Your task to perform on an android device: empty trash in the gmail app Image 0: 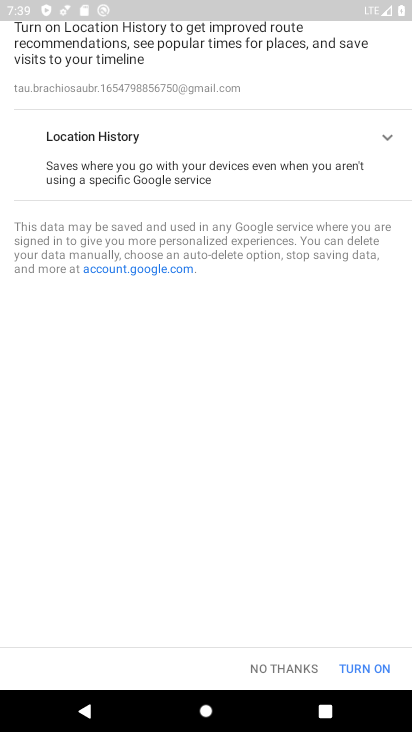
Step 0: press home button
Your task to perform on an android device: empty trash in the gmail app Image 1: 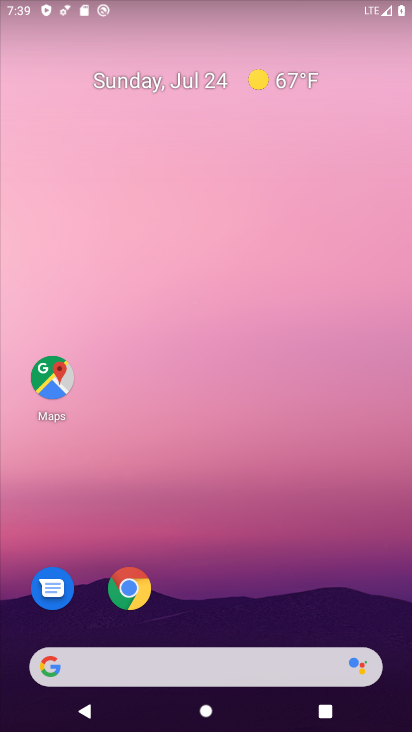
Step 1: drag from (192, 659) to (165, 228)
Your task to perform on an android device: empty trash in the gmail app Image 2: 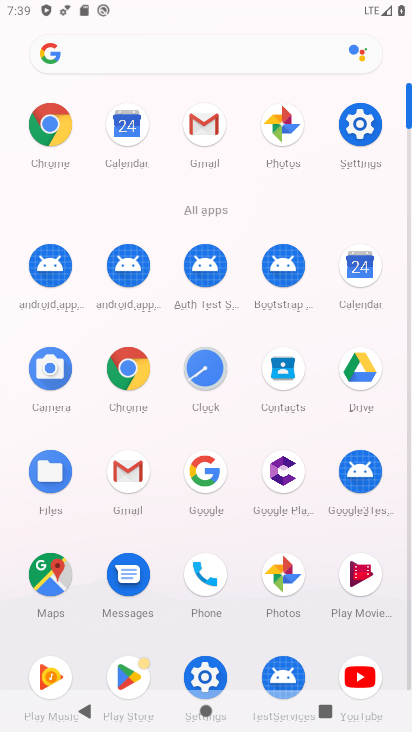
Step 2: click (201, 109)
Your task to perform on an android device: empty trash in the gmail app Image 3: 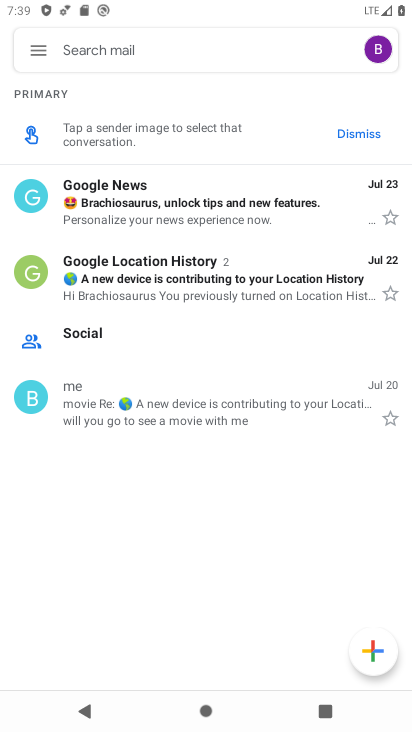
Step 3: click (35, 45)
Your task to perform on an android device: empty trash in the gmail app Image 4: 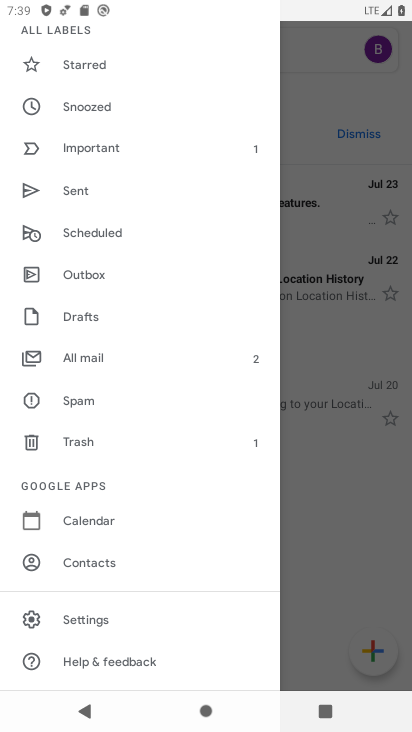
Step 4: click (83, 443)
Your task to perform on an android device: empty trash in the gmail app Image 5: 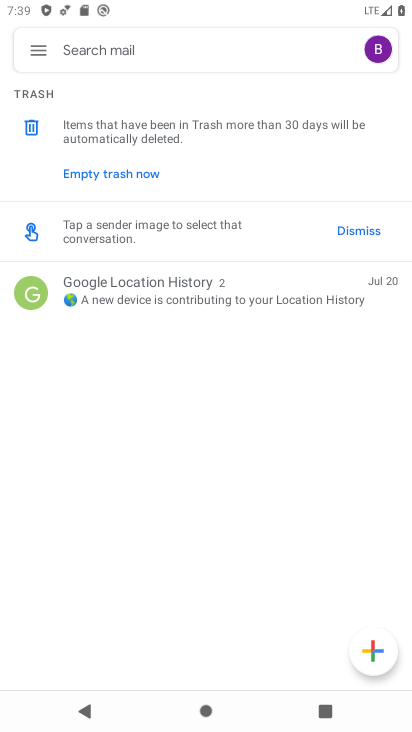
Step 5: click (171, 304)
Your task to perform on an android device: empty trash in the gmail app Image 6: 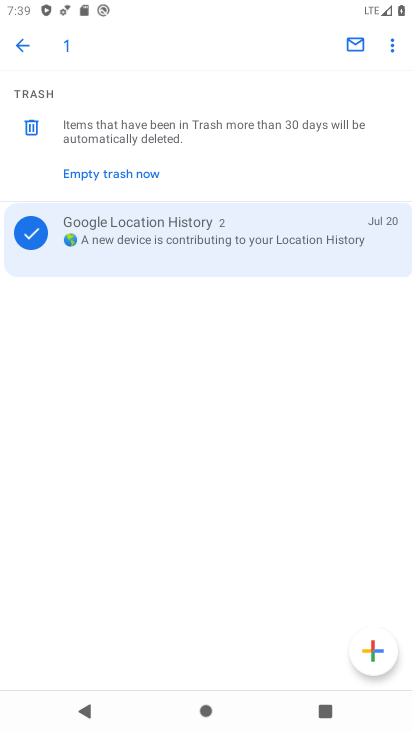
Step 6: click (35, 125)
Your task to perform on an android device: empty trash in the gmail app Image 7: 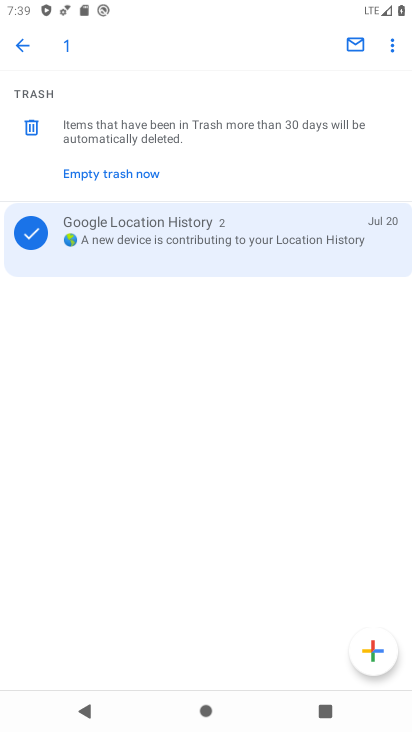
Step 7: click (29, 122)
Your task to perform on an android device: empty trash in the gmail app Image 8: 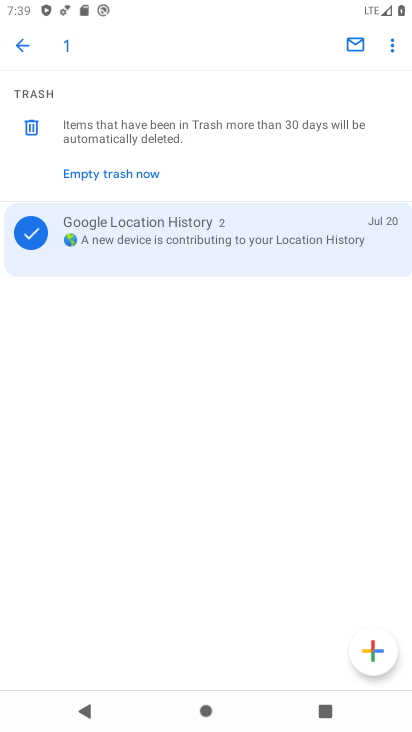
Step 8: click (29, 122)
Your task to perform on an android device: empty trash in the gmail app Image 9: 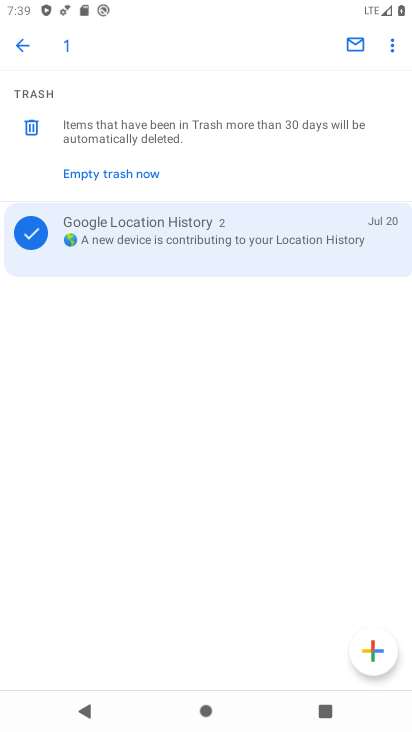
Step 9: click (29, 122)
Your task to perform on an android device: empty trash in the gmail app Image 10: 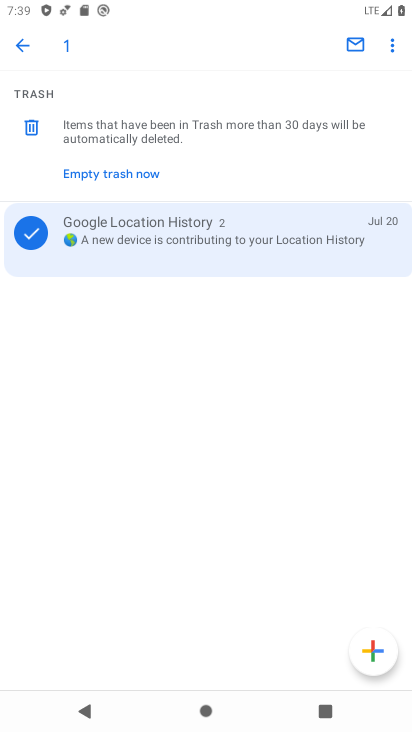
Step 10: click (29, 122)
Your task to perform on an android device: empty trash in the gmail app Image 11: 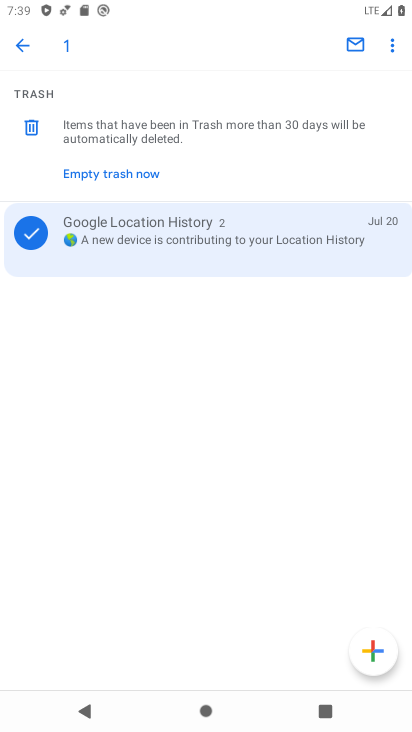
Step 11: click (31, 128)
Your task to perform on an android device: empty trash in the gmail app Image 12: 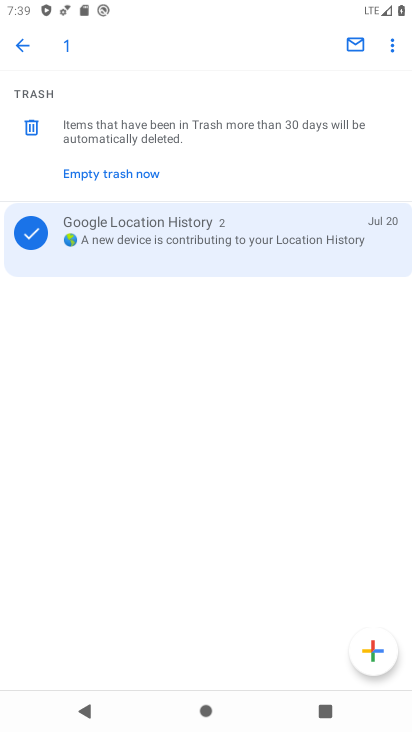
Step 12: click (401, 26)
Your task to perform on an android device: empty trash in the gmail app Image 13: 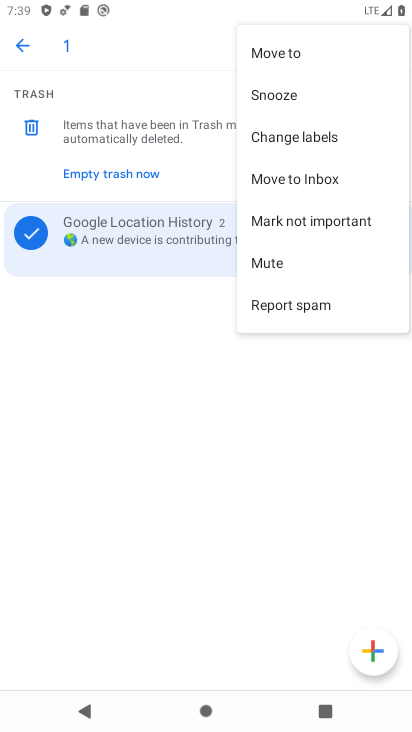
Step 13: click (45, 357)
Your task to perform on an android device: empty trash in the gmail app Image 14: 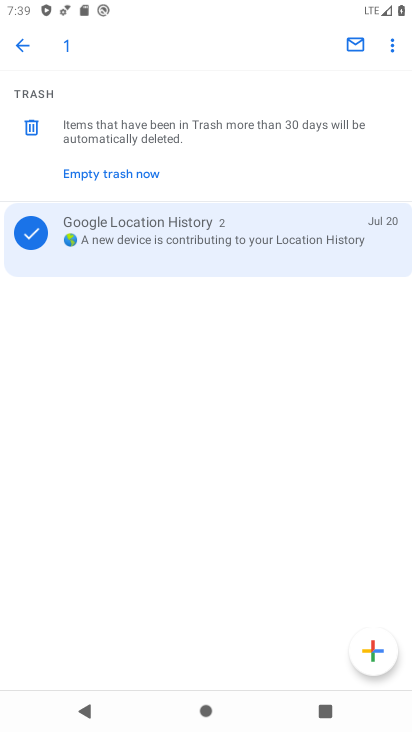
Step 14: click (169, 219)
Your task to perform on an android device: empty trash in the gmail app Image 15: 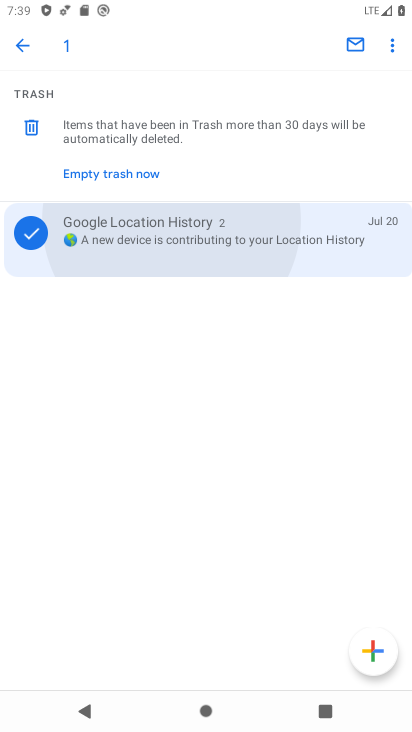
Step 15: click (166, 223)
Your task to perform on an android device: empty trash in the gmail app Image 16: 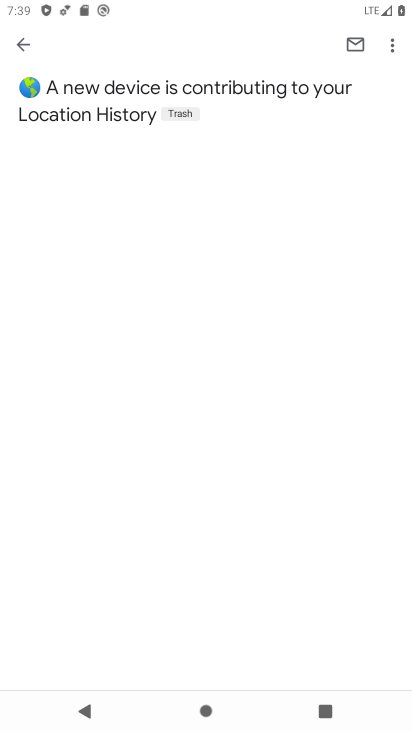
Step 16: click (28, 116)
Your task to perform on an android device: empty trash in the gmail app Image 17: 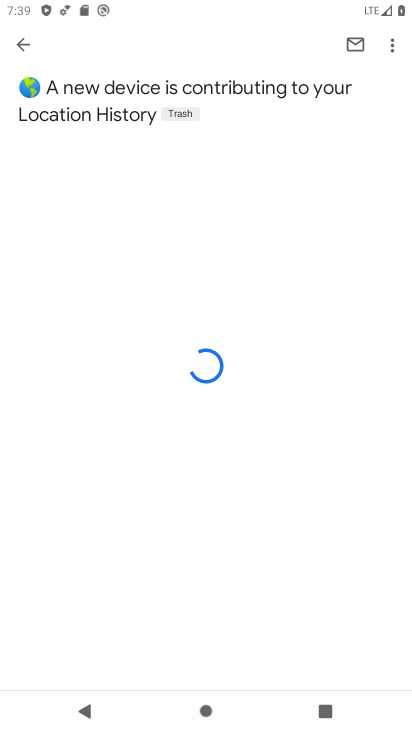
Step 17: click (19, 57)
Your task to perform on an android device: empty trash in the gmail app Image 18: 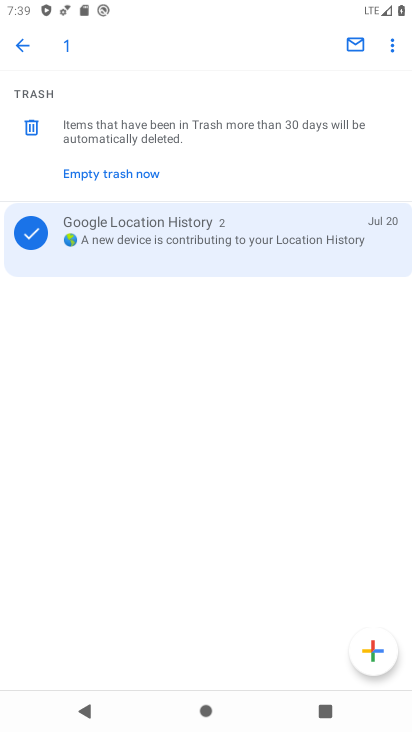
Step 18: click (130, 178)
Your task to perform on an android device: empty trash in the gmail app Image 19: 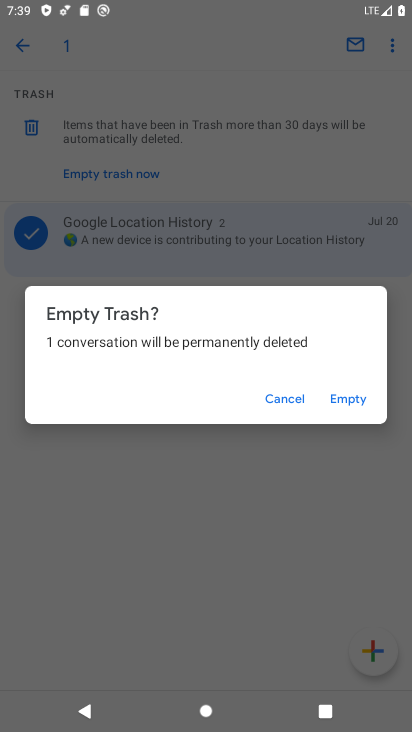
Step 19: click (360, 381)
Your task to perform on an android device: empty trash in the gmail app Image 20: 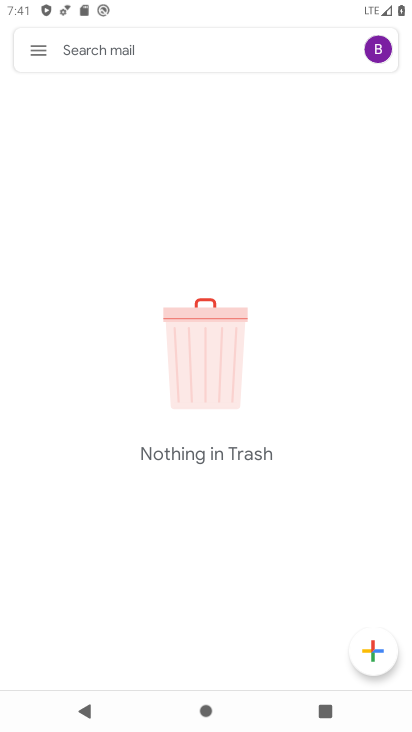
Step 20: task complete